Your task to perform on an android device: turn on data saver in the chrome app Image 0: 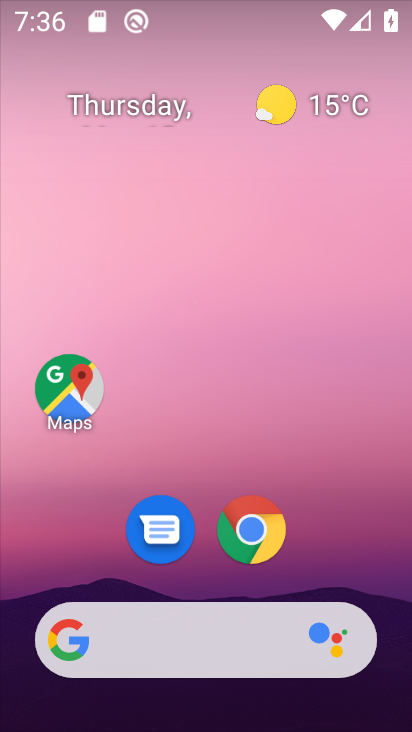
Step 0: click (262, 530)
Your task to perform on an android device: turn on data saver in the chrome app Image 1: 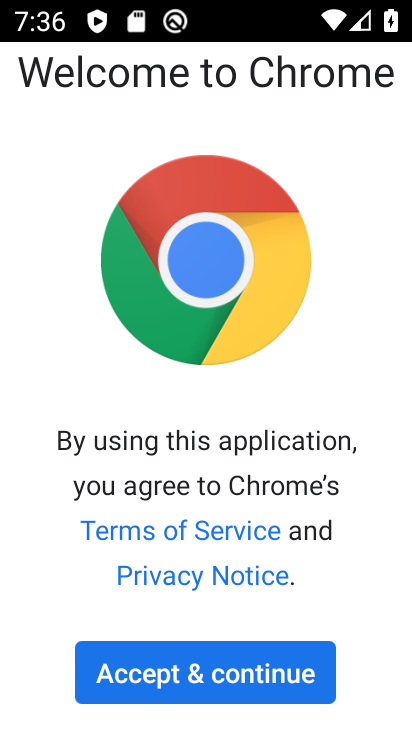
Step 1: click (239, 661)
Your task to perform on an android device: turn on data saver in the chrome app Image 2: 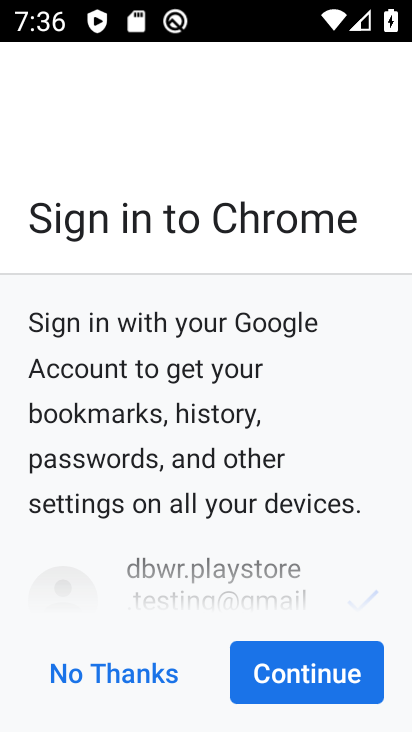
Step 2: click (258, 667)
Your task to perform on an android device: turn on data saver in the chrome app Image 3: 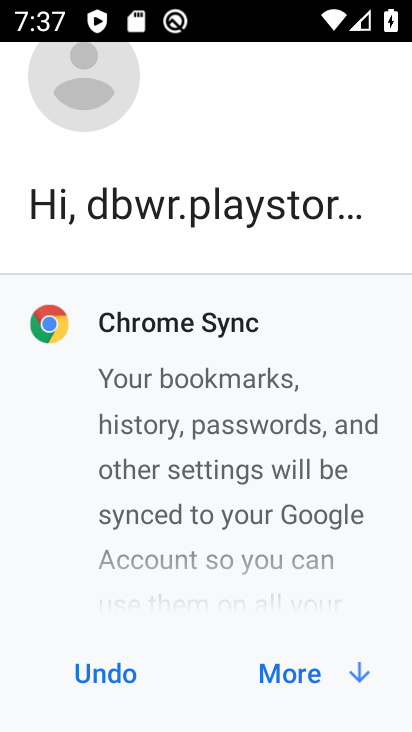
Step 3: click (261, 671)
Your task to perform on an android device: turn on data saver in the chrome app Image 4: 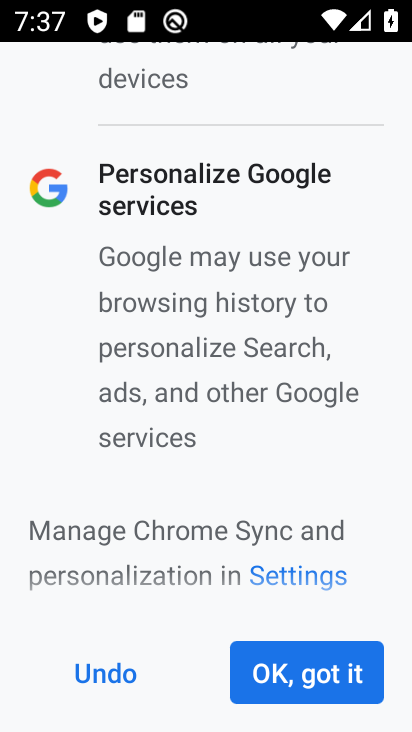
Step 4: click (275, 673)
Your task to perform on an android device: turn on data saver in the chrome app Image 5: 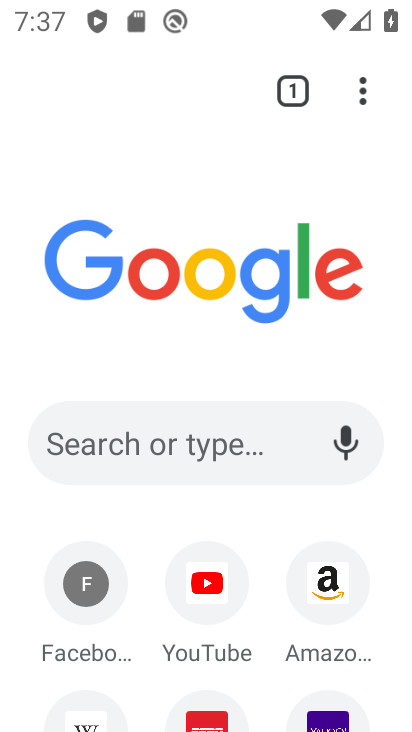
Step 5: click (356, 87)
Your task to perform on an android device: turn on data saver in the chrome app Image 6: 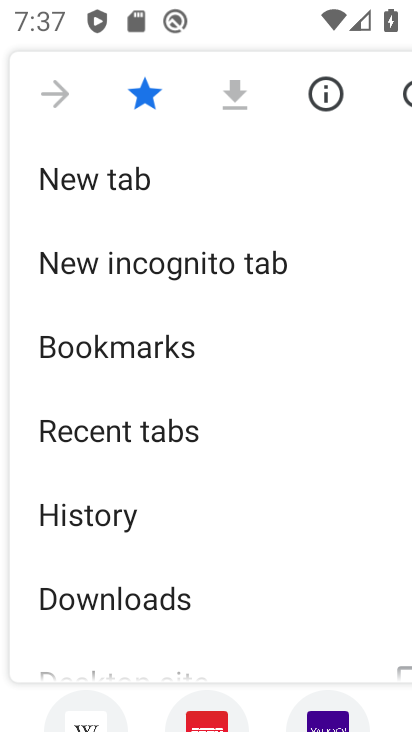
Step 6: drag from (160, 550) to (285, 13)
Your task to perform on an android device: turn on data saver in the chrome app Image 7: 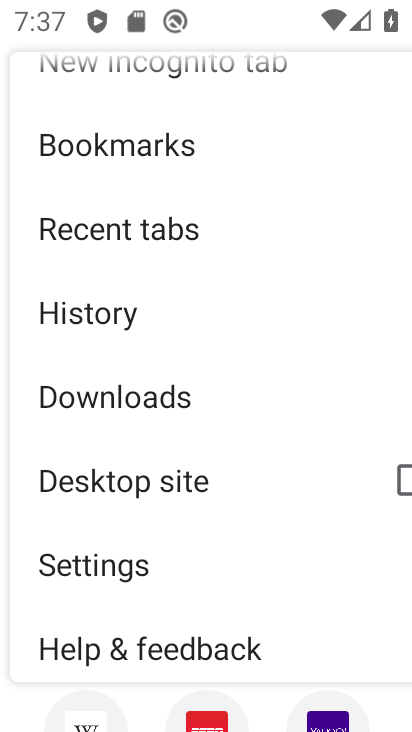
Step 7: click (125, 572)
Your task to perform on an android device: turn on data saver in the chrome app Image 8: 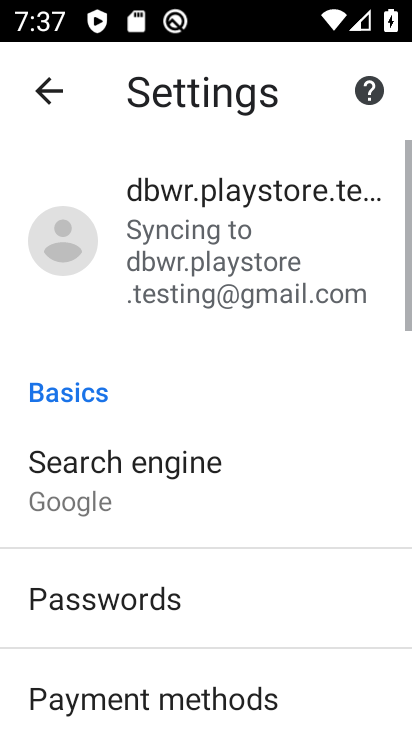
Step 8: drag from (146, 586) to (237, 53)
Your task to perform on an android device: turn on data saver in the chrome app Image 9: 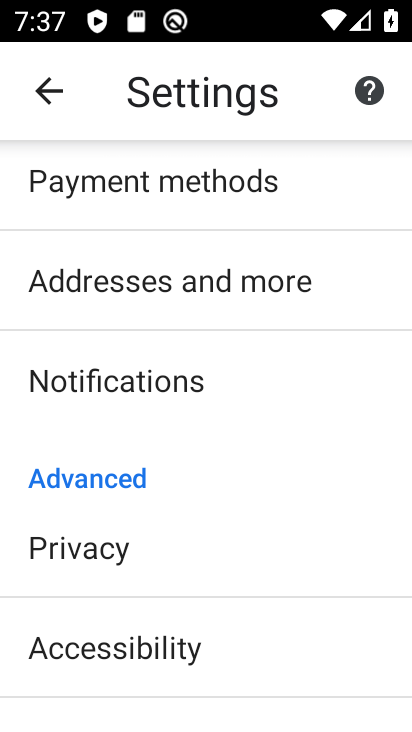
Step 9: drag from (121, 532) to (169, 75)
Your task to perform on an android device: turn on data saver in the chrome app Image 10: 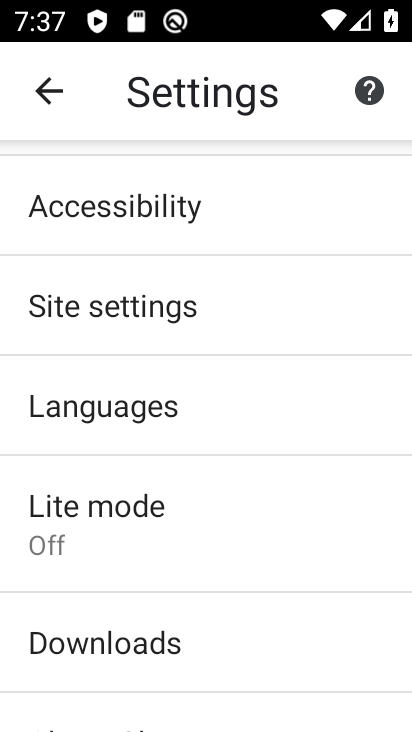
Step 10: drag from (118, 489) to (185, 350)
Your task to perform on an android device: turn on data saver in the chrome app Image 11: 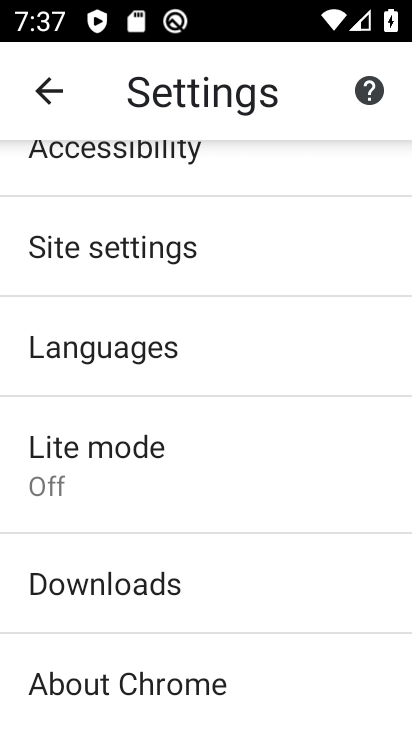
Step 11: click (130, 457)
Your task to perform on an android device: turn on data saver in the chrome app Image 12: 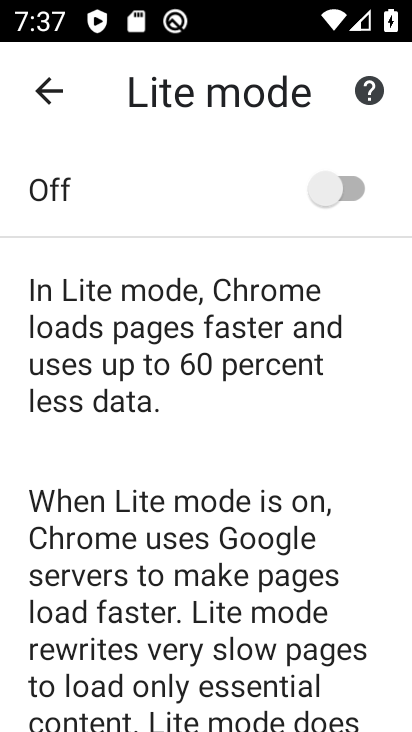
Step 12: click (321, 171)
Your task to perform on an android device: turn on data saver in the chrome app Image 13: 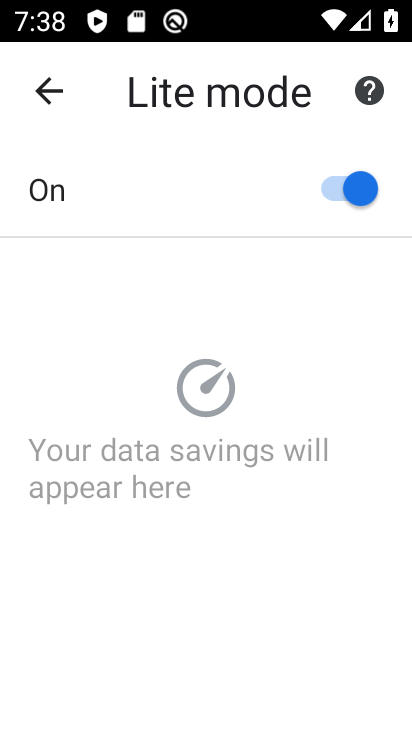
Step 13: task complete